Your task to perform on an android device: Go to sound settings Image 0: 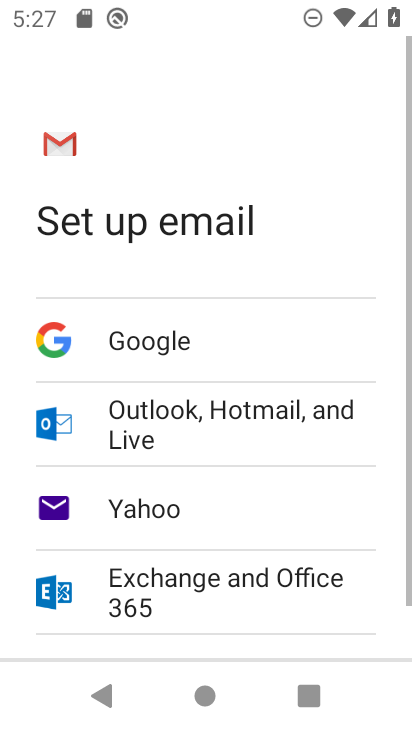
Step 0: press home button
Your task to perform on an android device: Go to sound settings Image 1: 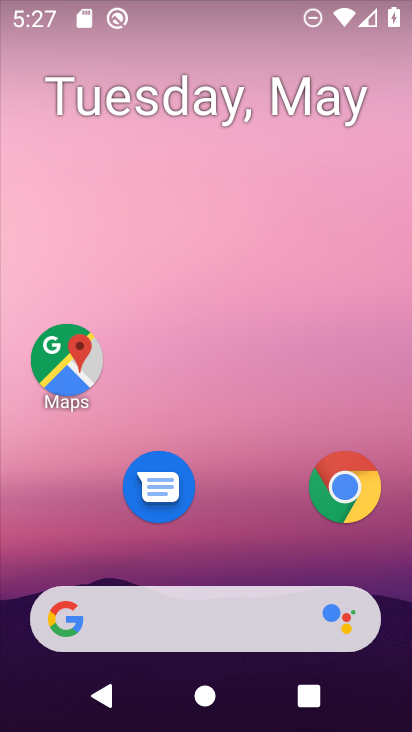
Step 1: drag from (250, 575) to (216, 102)
Your task to perform on an android device: Go to sound settings Image 2: 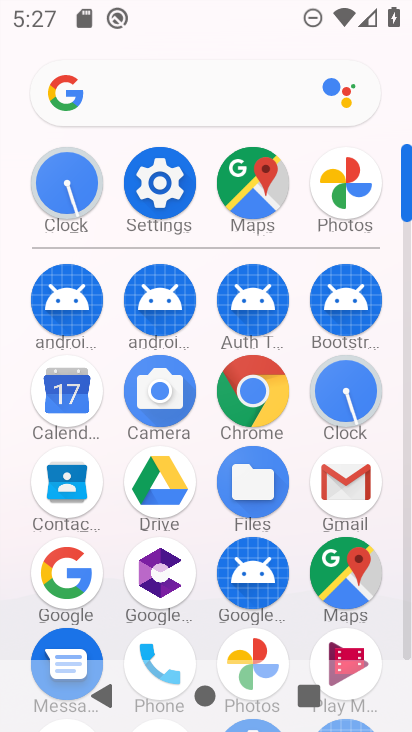
Step 2: click (167, 197)
Your task to perform on an android device: Go to sound settings Image 3: 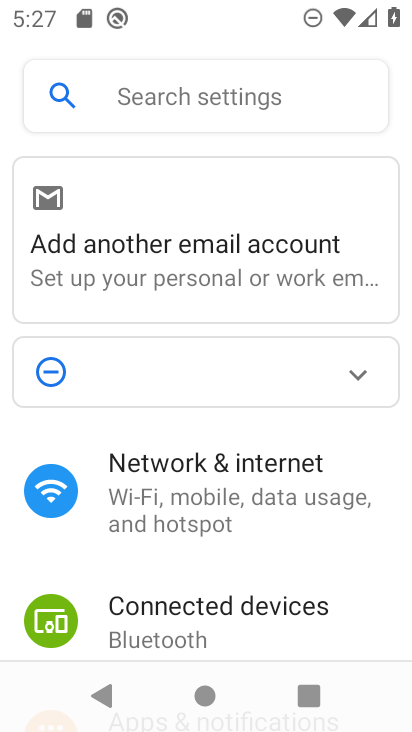
Step 3: drag from (279, 552) to (184, 137)
Your task to perform on an android device: Go to sound settings Image 4: 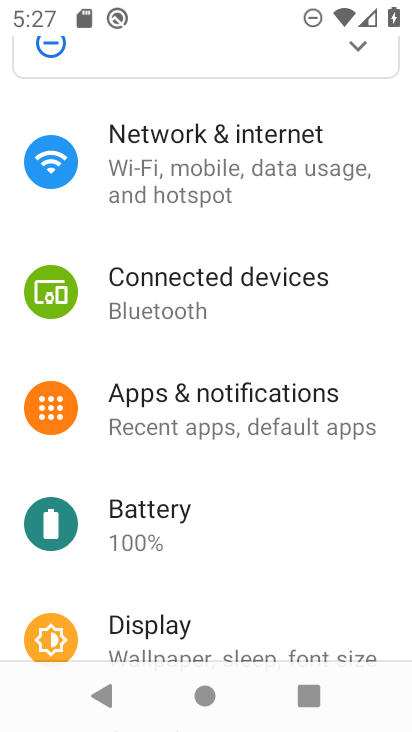
Step 4: drag from (214, 578) to (150, 326)
Your task to perform on an android device: Go to sound settings Image 5: 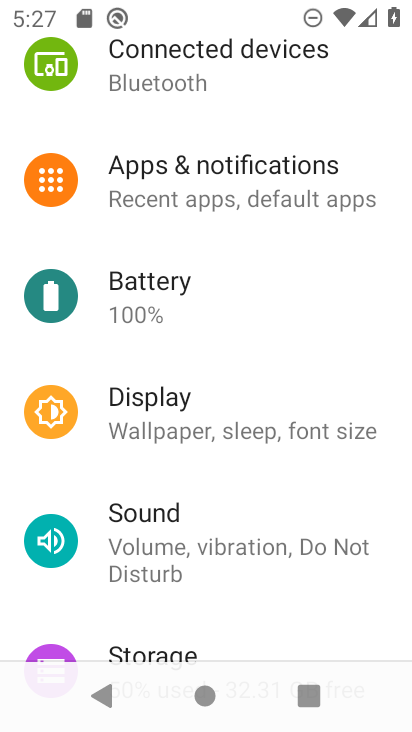
Step 5: click (185, 515)
Your task to perform on an android device: Go to sound settings Image 6: 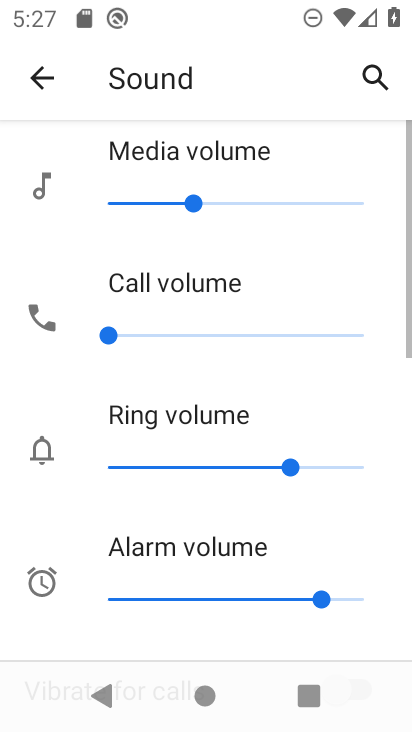
Step 6: task complete